Your task to perform on an android device: delete a single message in the gmail app Image 0: 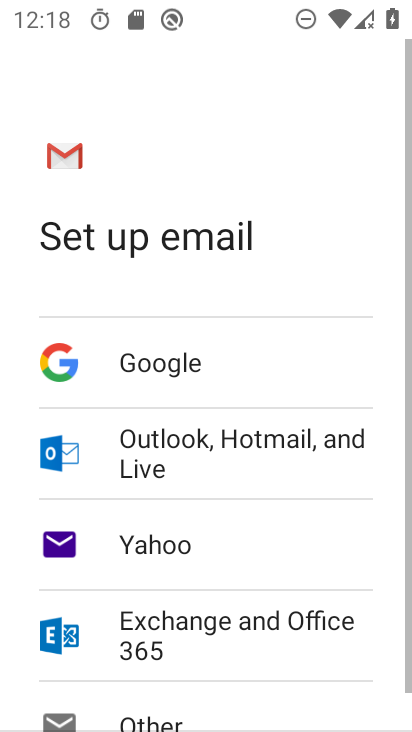
Step 0: press home button
Your task to perform on an android device: delete a single message in the gmail app Image 1: 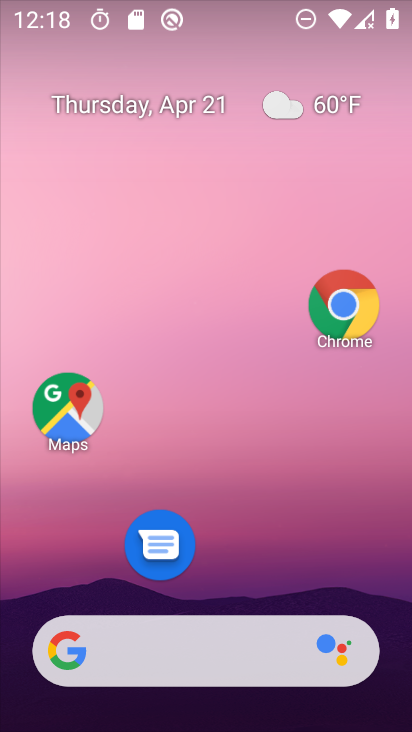
Step 1: drag from (282, 628) to (246, 184)
Your task to perform on an android device: delete a single message in the gmail app Image 2: 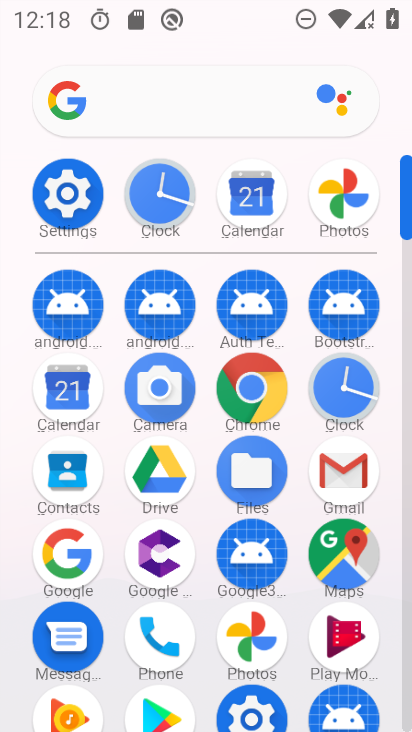
Step 2: click (342, 476)
Your task to perform on an android device: delete a single message in the gmail app Image 3: 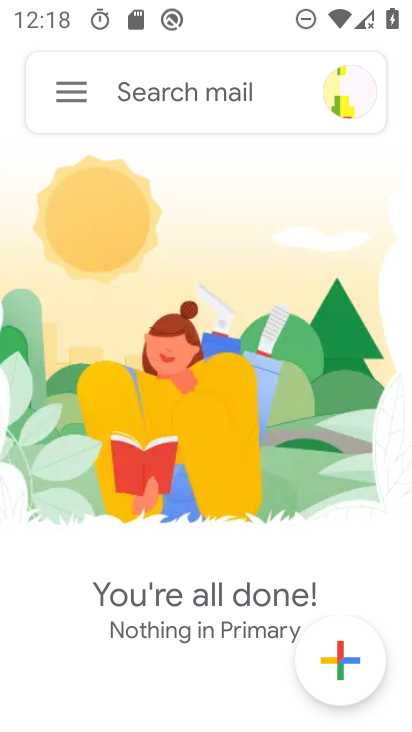
Step 3: click (91, 100)
Your task to perform on an android device: delete a single message in the gmail app Image 4: 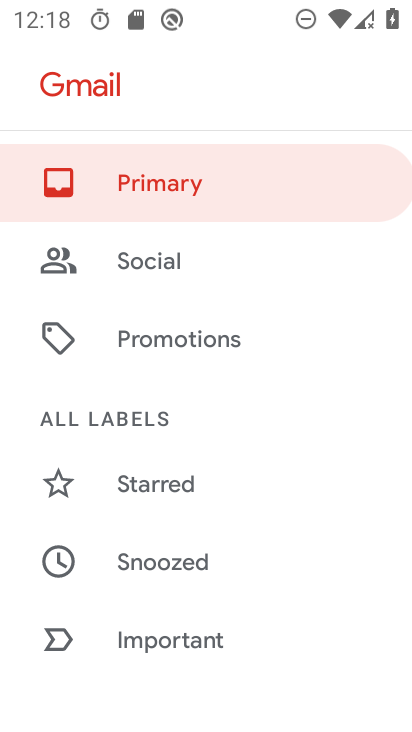
Step 4: drag from (204, 458) to (183, 252)
Your task to perform on an android device: delete a single message in the gmail app Image 5: 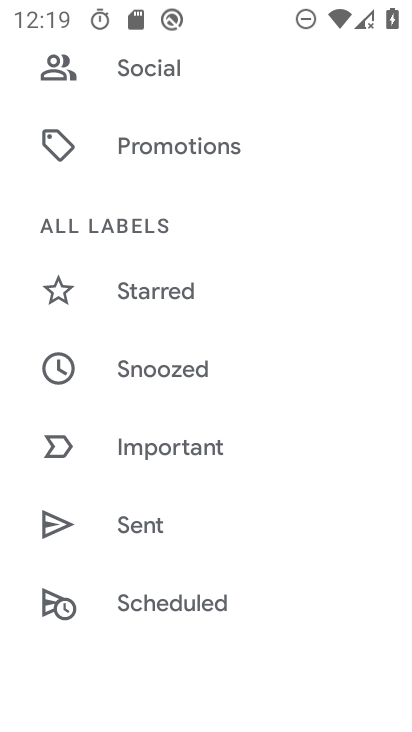
Step 5: drag from (234, 533) to (252, 37)
Your task to perform on an android device: delete a single message in the gmail app Image 6: 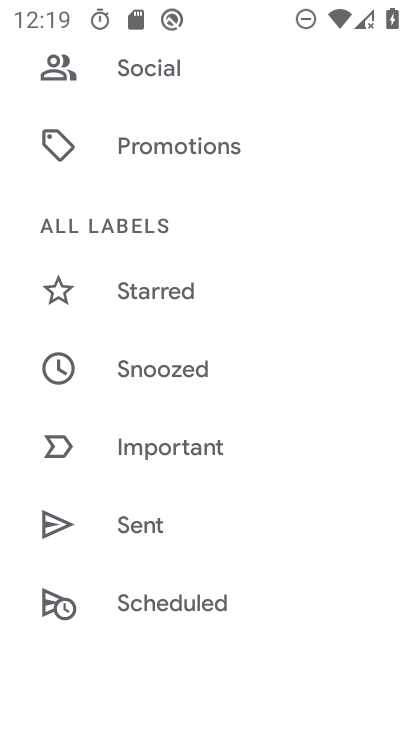
Step 6: drag from (177, 154) to (159, 586)
Your task to perform on an android device: delete a single message in the gmail app Image 7: 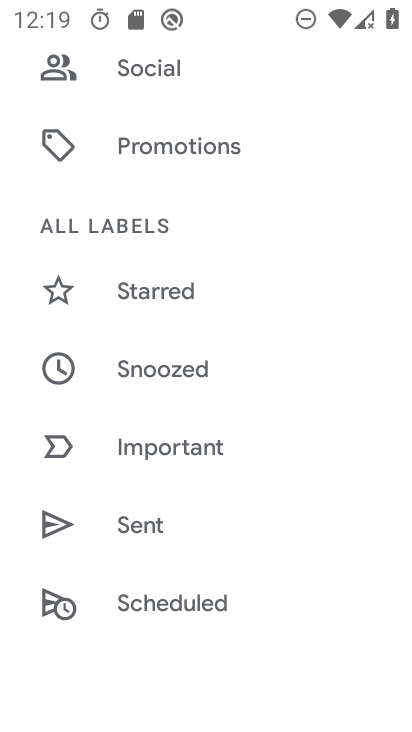
Step 7: drag from (199, 161) to (226, 565)
Your task to perform on an android device: delete a single message in the gmail app Image 8: 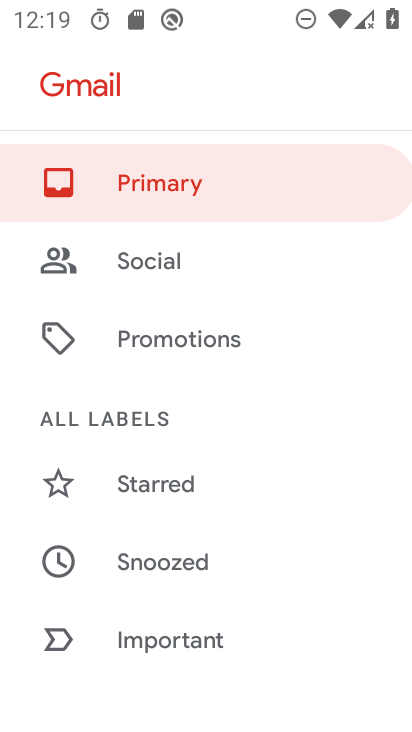
Step 8: drag from (188, 608) to (220, 116)
Your task to perform on an android device: delete a single message in the gmail app Image 9: 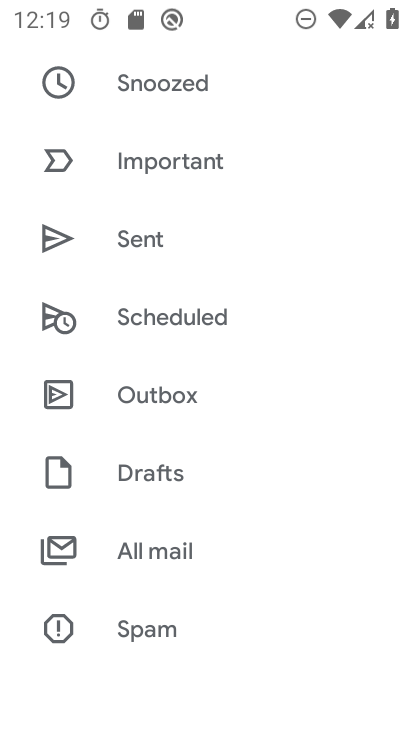
Step 9: drag from (254, 500) to (272, 235)
Your task to perform on an android device: delete a single message in the gmail app Image 10: 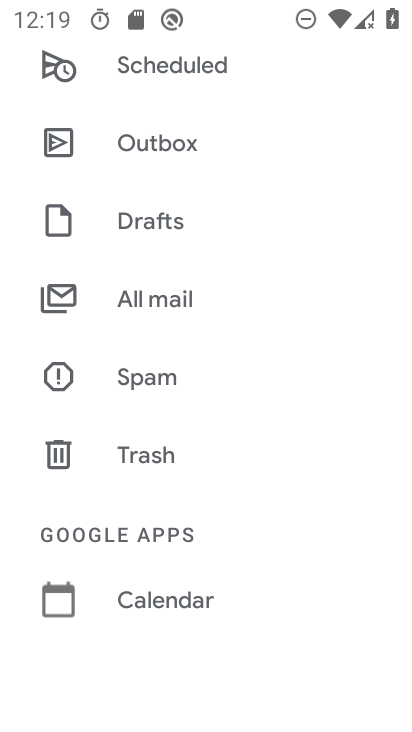
Step 10: click (212, 287)
Your task to perform on an android device: delete a single message in the gmail app Image 11: 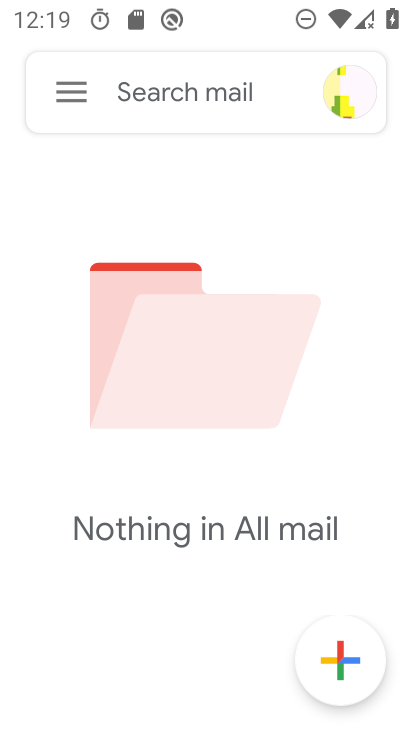
Step 11: task complete